Your task to perform on an android device: What's on my calendar tomorrow? Image 0: 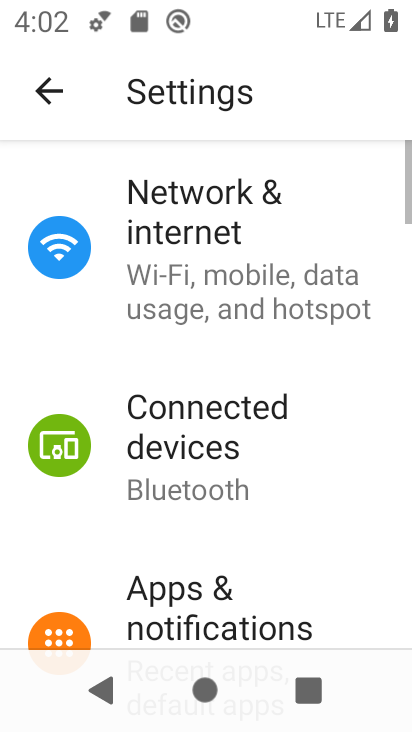
Step 0: press home button
Your task to perform on an android device: What's on my calendar tomorrow? Image 1: 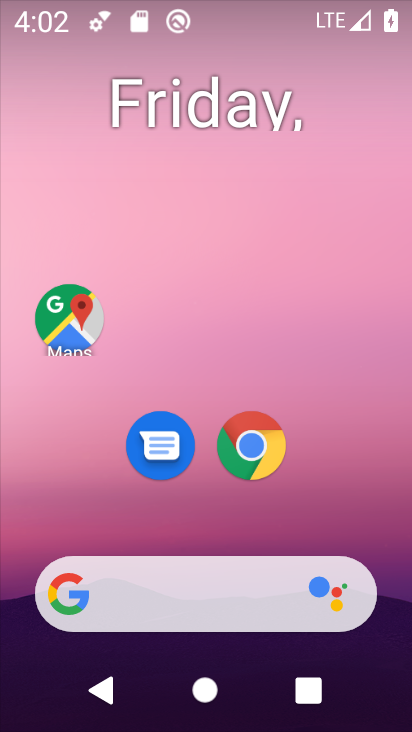
Step 1: drag from (397, 561) to (309, 161)
Your task to perform on an android device: What's on my calendar tomorrow? Image 2: 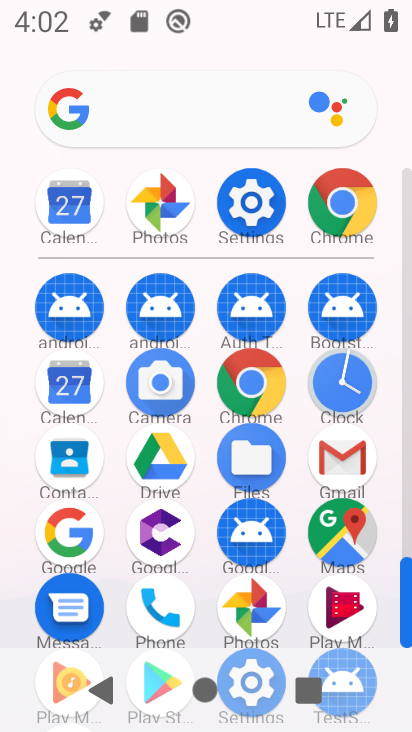
Step 2: click (66, 384)
Your task to perform on an android device: What's on my calendar tomorrow? Image 3: 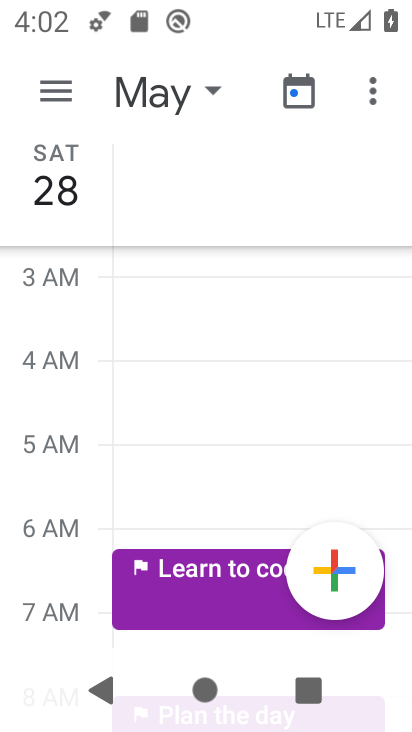
Step 3: task complete